Your task to perform on an android device: turn off location Image 0: 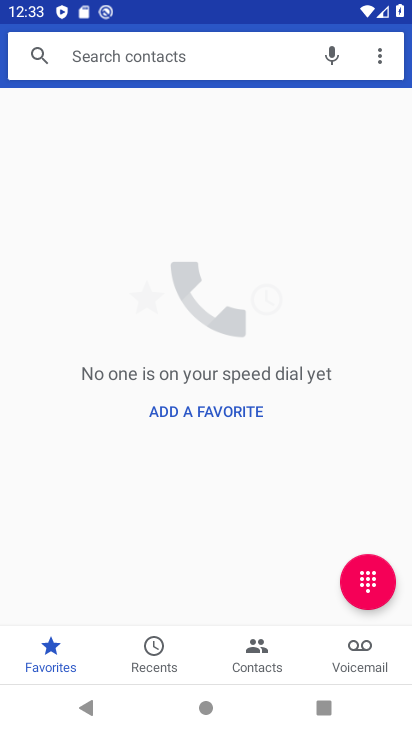
Step 0: press home button
Your task to perform on an android device: turn off location Image 1: 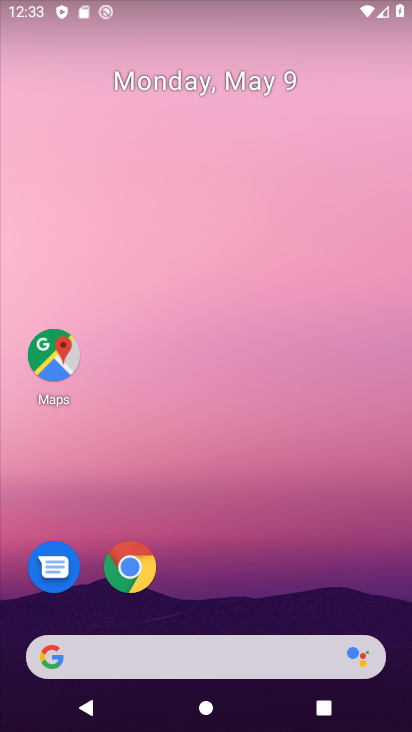
Step 1: drag from (214, 592) to (284, 63)
Your task to perform on an android device: turn off location Image 2: 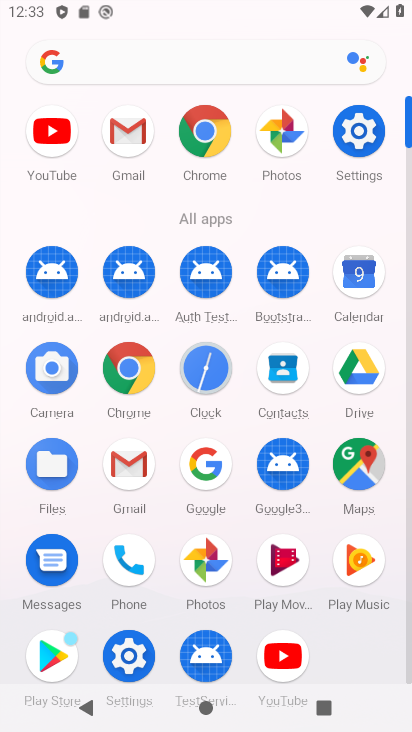
Step 2: click (345, 147)
Your task to perform on an android device: turn off location Image 3: 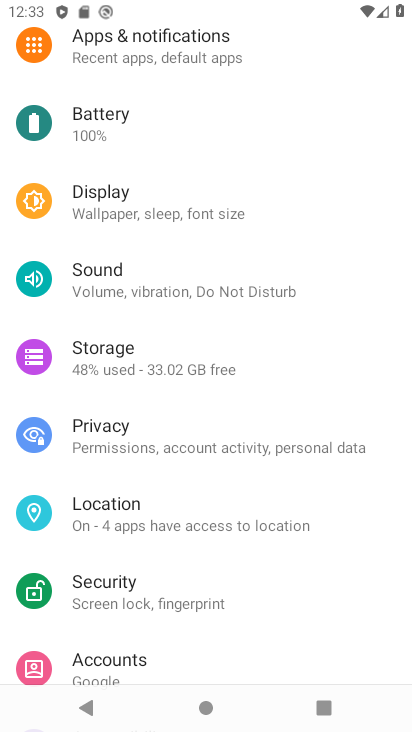
Step 3: click (124, 470)
Your task to perform on an android device: turn off location Image 4: 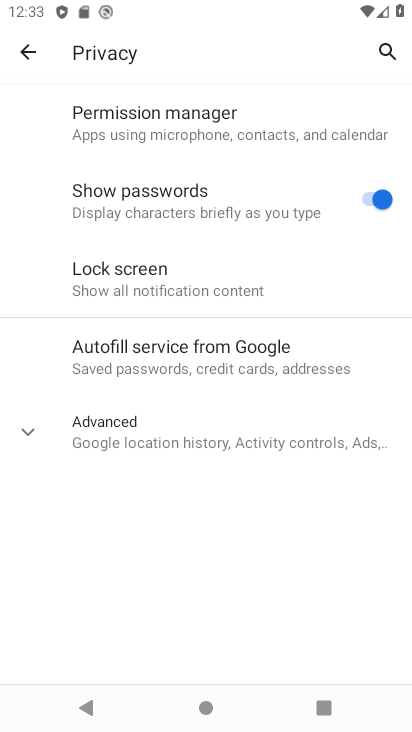
Step 4: press back button
Your task to perform on an android device: turn off location Image 5: 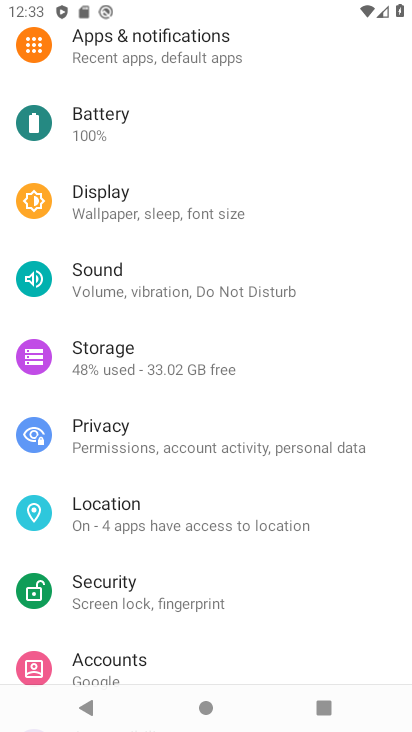
Step 5: click (167, 536)
Your task to perform on an android device: turn off location Image 6: 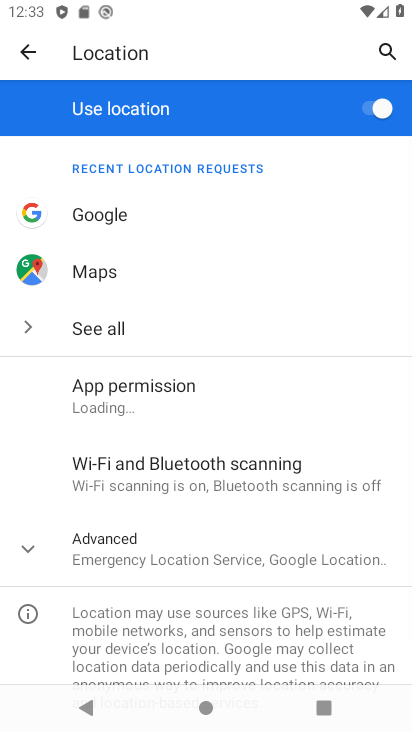
Step 6: click (370, 117)
Your task to perform on an android device: turn off location Image 7: 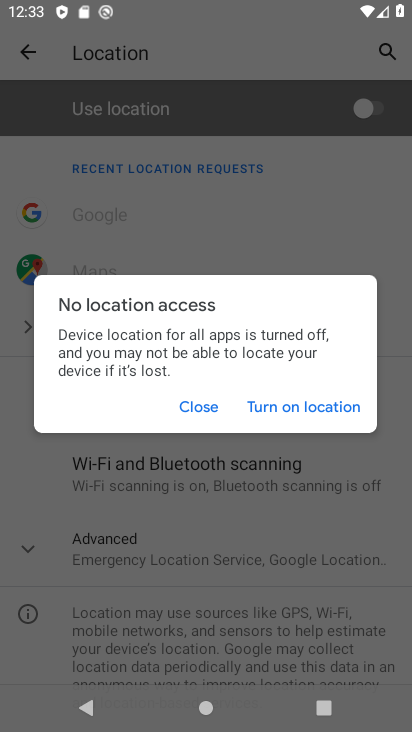
Step 7: click (191, 420)
Your task to perform on an android device: turn off location Image 8: 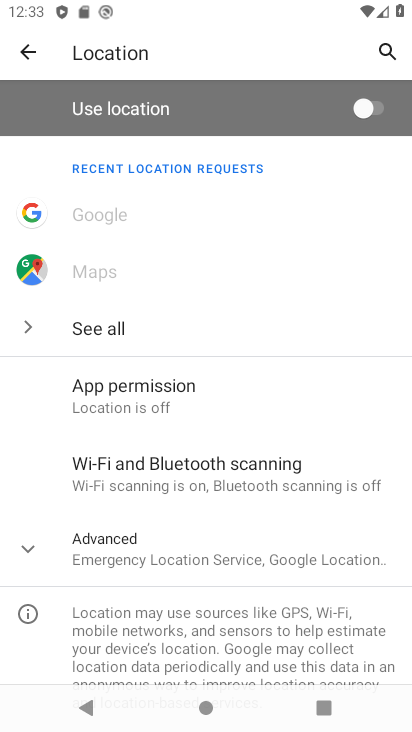
Step 8: task complete